Your task to perform on an android device: Open maps Image 0: 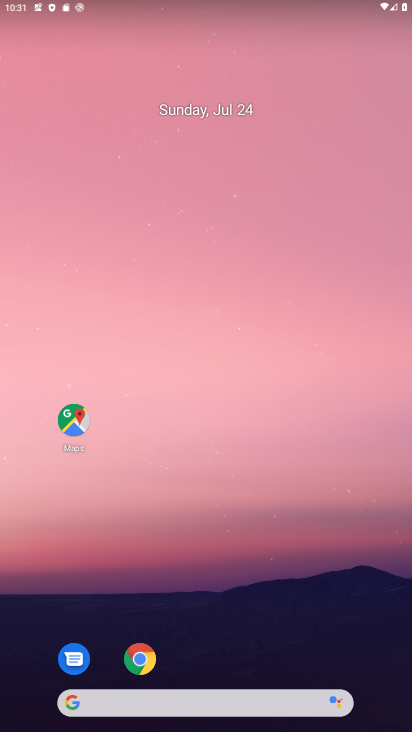
Step 0: click (73, 409)
Your task to perform on an android device: Open maps Image 1: 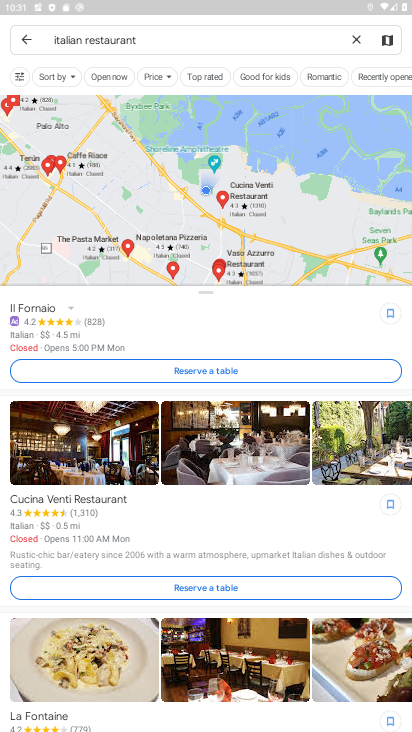
Step 1: task complete